Your task to perform on an android device: What's the weather today? Image 0: 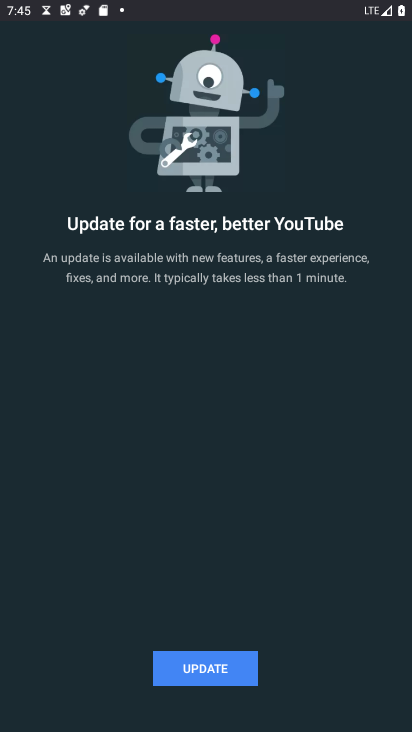
Step 0: press home button
Your task to perform on an android device: What's the weather today? Image 1: 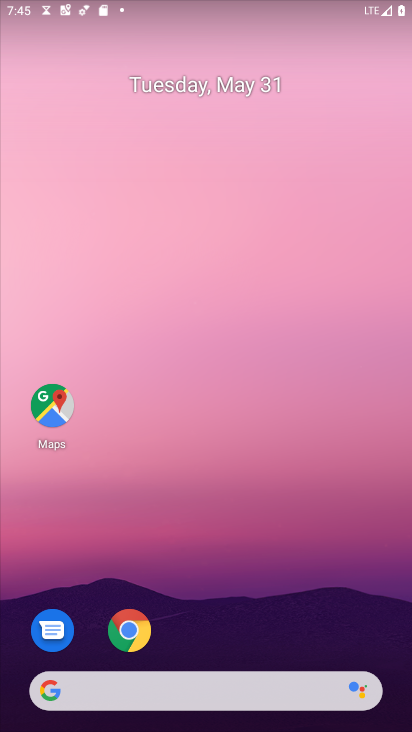
Step 1: drag from (216, 621) to (242, 107)
Your task to perform on an android device: What's the weather today? Image 2: 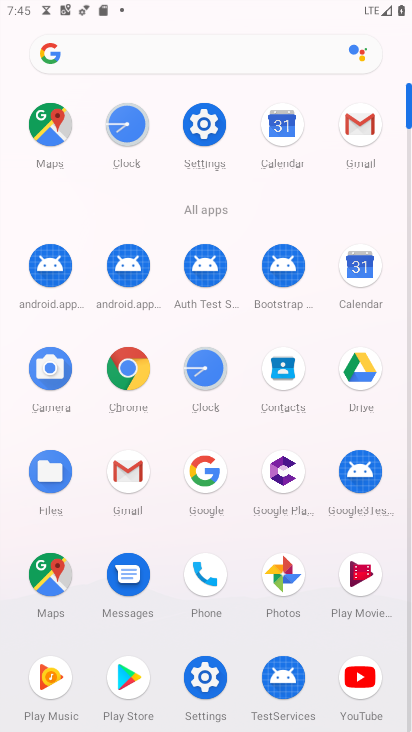
Step 2: click (200, 469)
Your task to perform on an android device: What's the weather today? Image 3: 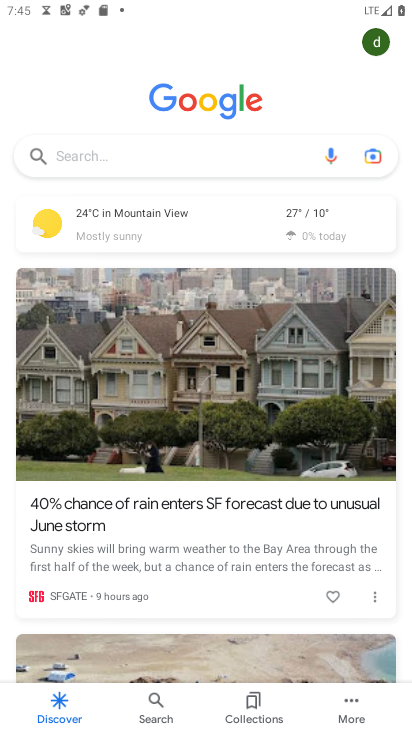
Step 3: click (158, 221)
Your task to perform on an android device: What's the weather today? Image 4: 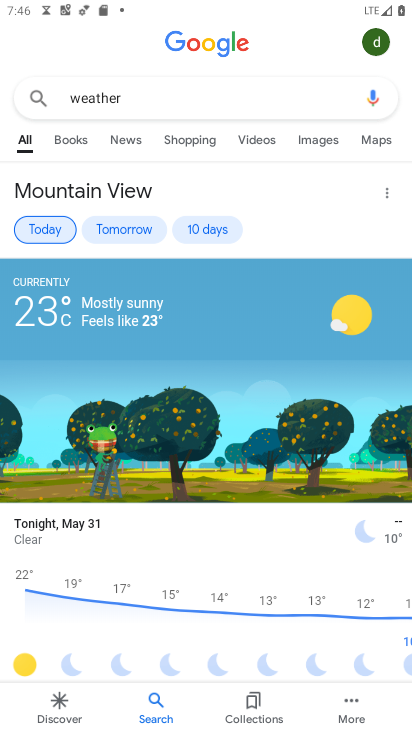
Step 4: task complete